Your task to perform on an android device: Is it going to rain today? Image 0: 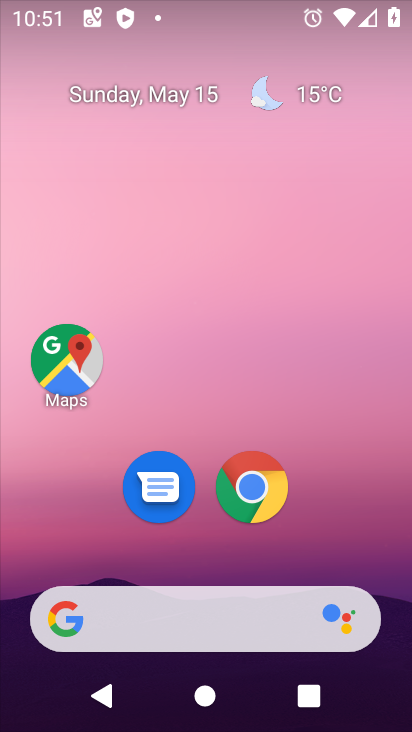
Step 0: click (313, 90)
Your task to perform on an android device: Is it going to rain today? Image 1: 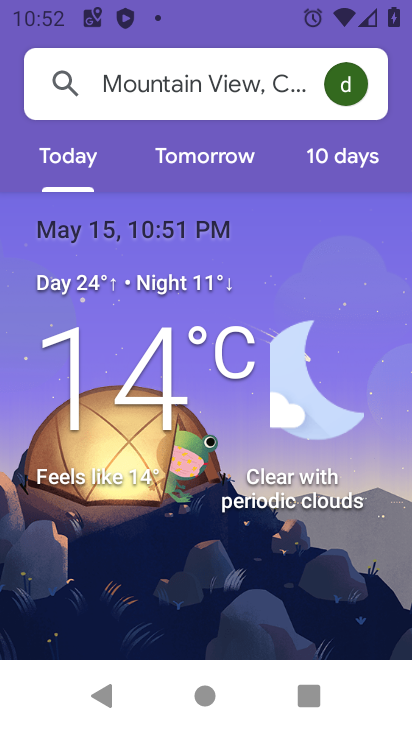
Step 1: task complete